Your task to perform on an android device: Check the weather Image 0: 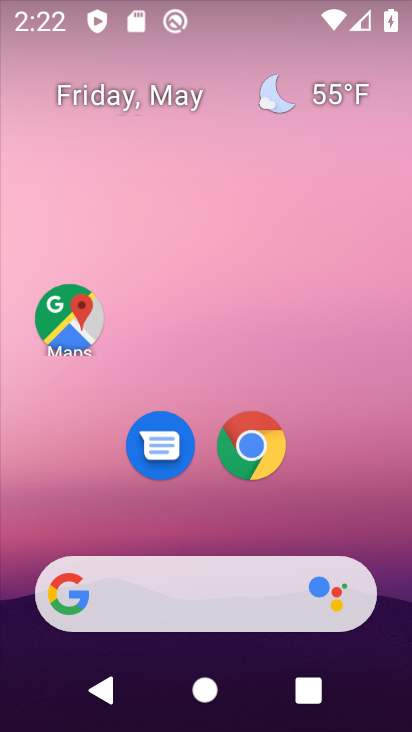
Step 0: drag from (371, 511) to (359, 169)
Your task to perform on an android device: Check the weather Image 1: 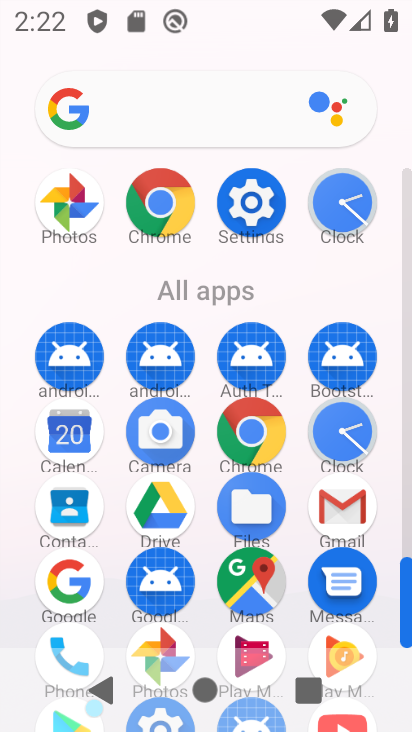
Step 1: click (248, 436)
Your task to perform on an android device: Check the weather Image 2: 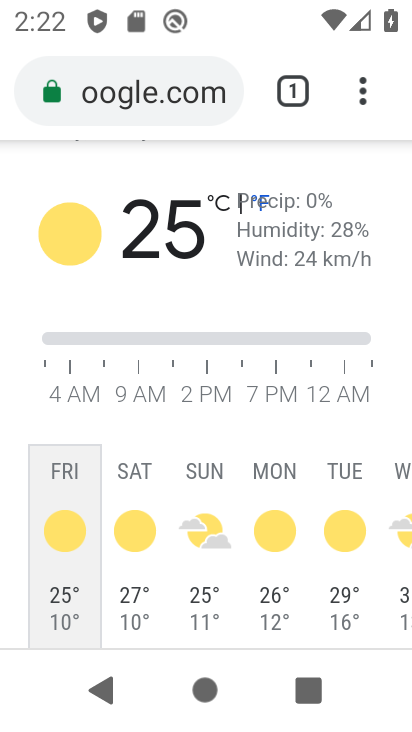
Step 2: click (182, 106)
Your task to perform on an android device: Check the weather Image 3: 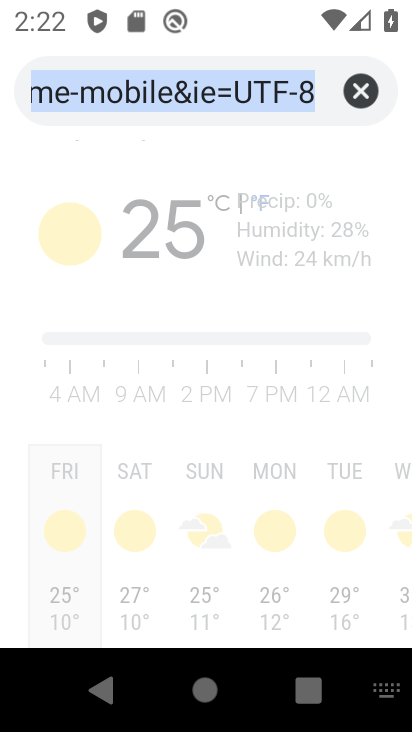
Step 3: click (357, 91)
Your task to perform on an android device: Check the weather Image 4: 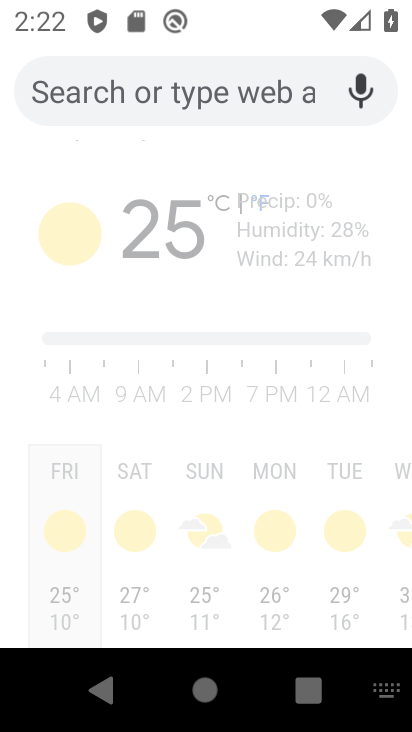
Step 4: type "check the weather"
Your task to perform on an android device: Check the weather Image 5: 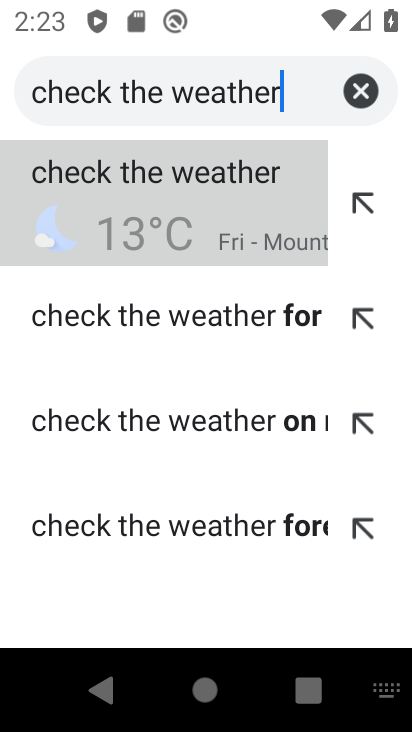
Step 5: click (233, 209)
Your task to perform on an android device: Check the weather Image 6: 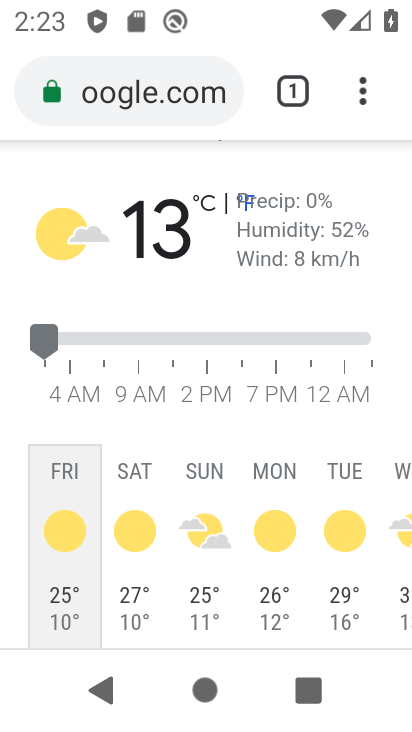
Step 6: task complete